Your task to perform on an android device: set an alarm Image 0: 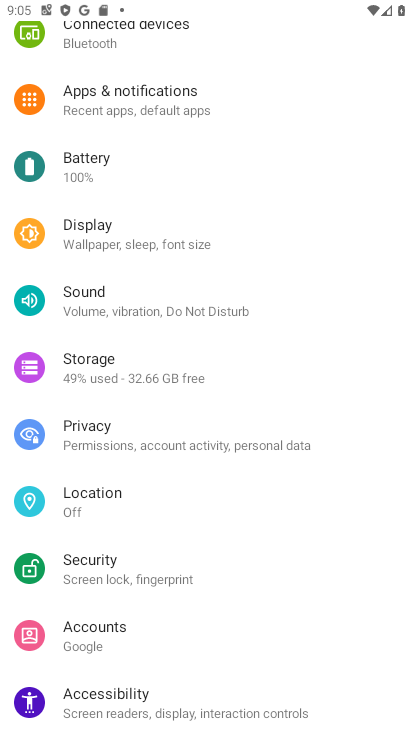
Step 0: press home button
Your task to perform on an android device: set an alarm Image 1: 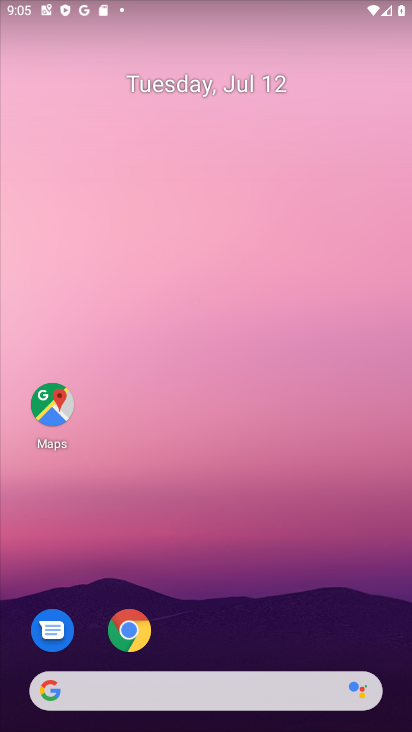
Step 1: drag from (211, 628) to (237, 132)
Your task to perform on an android device: set an alarm Image 2: 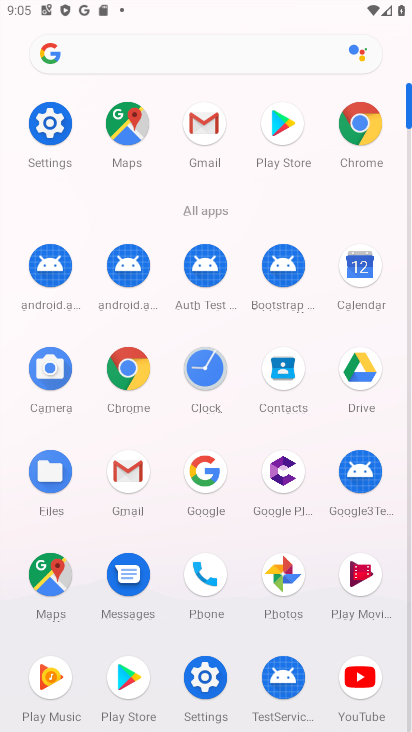
Step 2: click (209, 365)
Your task to perform on an android device: set an alarm Image 3: 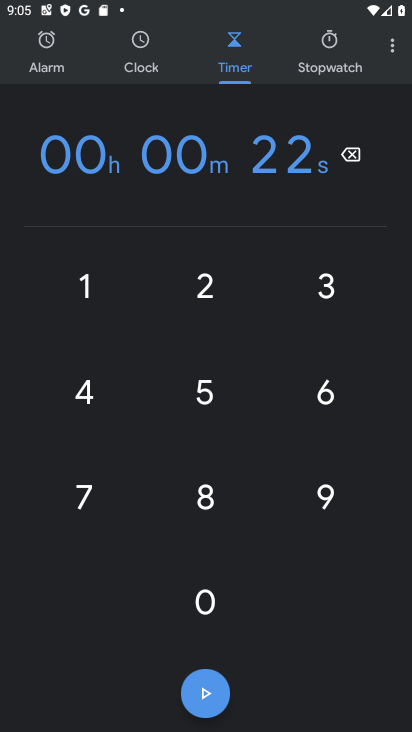
Step 3: click (47, 64)
Your task to perform on an android device: set an alarm Image 4: 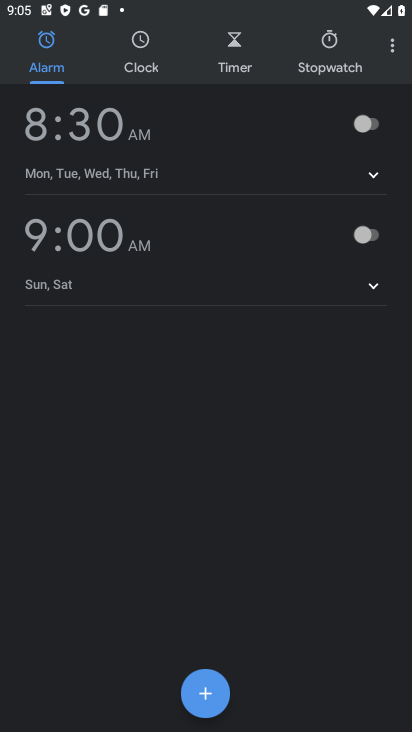
Step 4: click (364, 120)
Your task to perform on an android device: set an alarm Image 5: 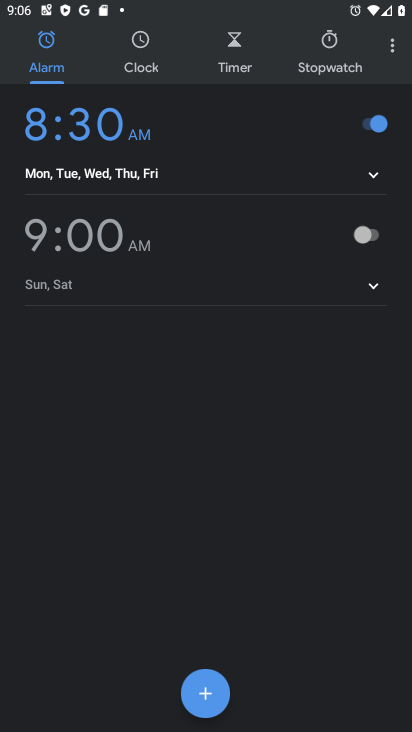
Step 5: task complete